Your task to perform on an android device: Open the calendar and show me this week's events? Image 0: 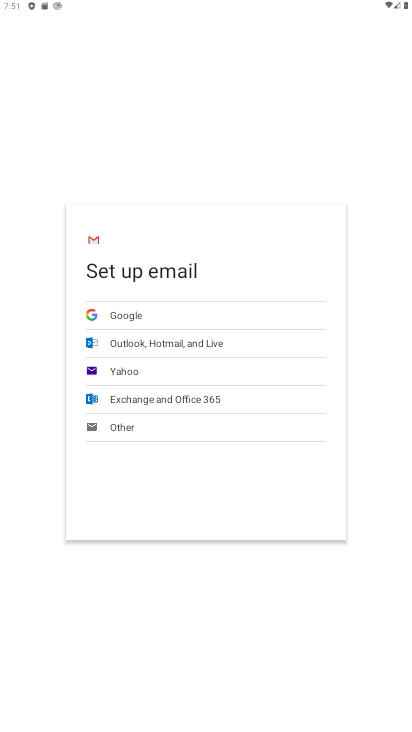
Step 0: press home button
Your task to perform on an android device: Open the calendar and show me this week's events? Image 1: 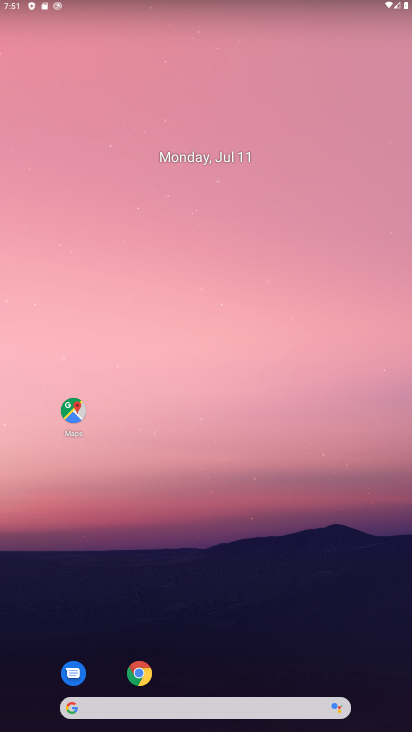
Step 1: drag from (217, 675) to (252, 101)
Your task to perform on an android device: Open the calendar and show me this week's events? Image 2: 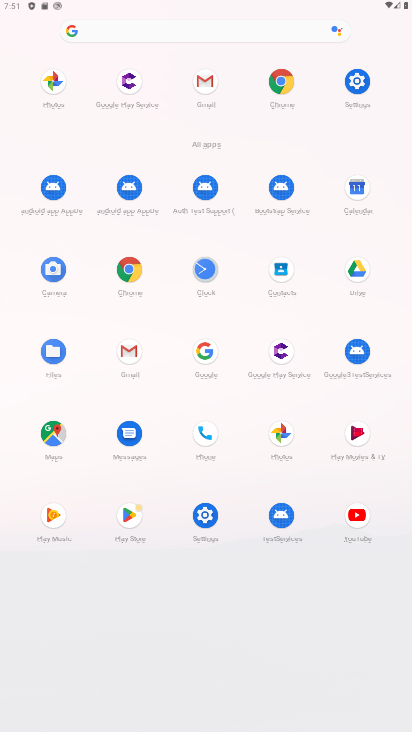
Step 2: click (358, 186)
Your task to perform on an android device: Open the calendar and show me this week's events? Image 3: 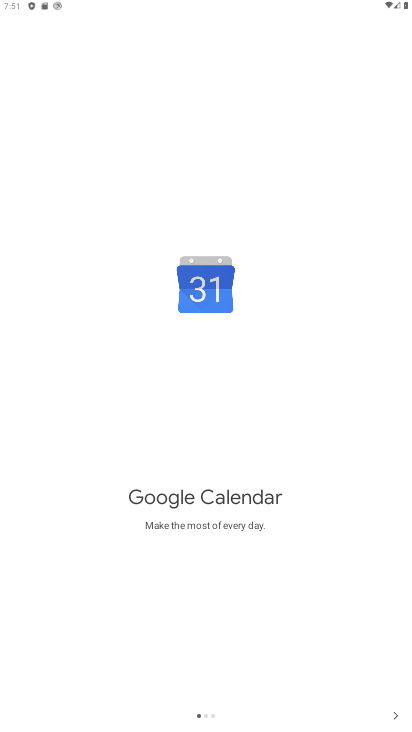
Step 3: click (394, 714)
Your task to perform on an android device: Open the calendar and show me this week's events? Image 4: 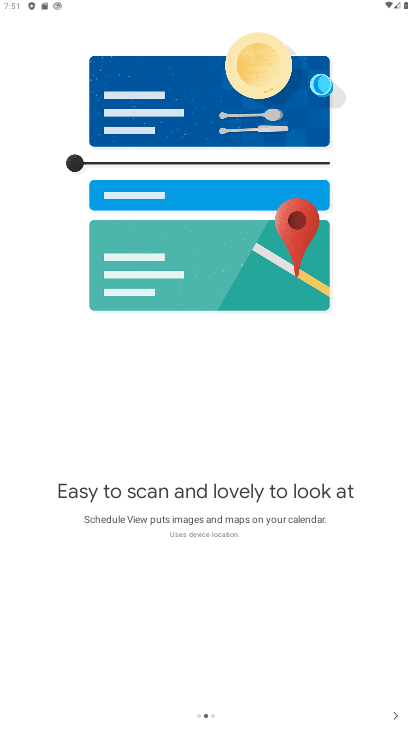
Step 4: click (394, 714)
Your task to perform on an android device: Open the calendar and show me this week's events? Image 5: 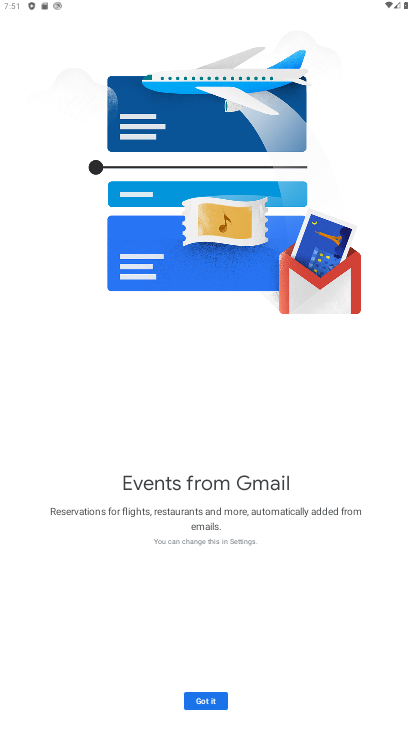
Step 5: click (207, 698)
Your task to perform on an android device: Open the calendar and show me this week's events? Image 6: 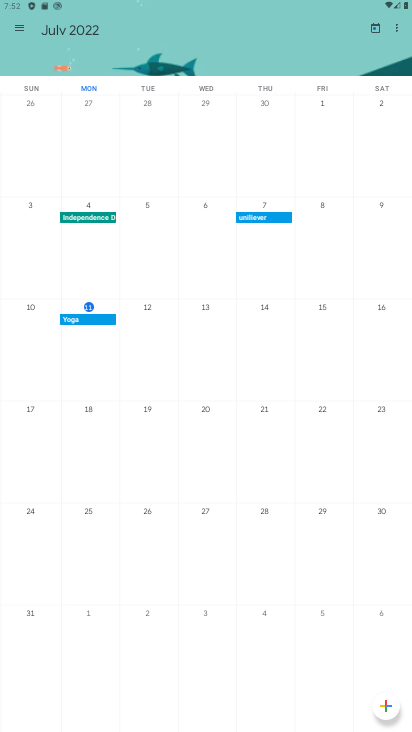
Step 6: click (14, 24)
Your task to perform on an android device: Open the calendar and show me this week's events? Image 7: 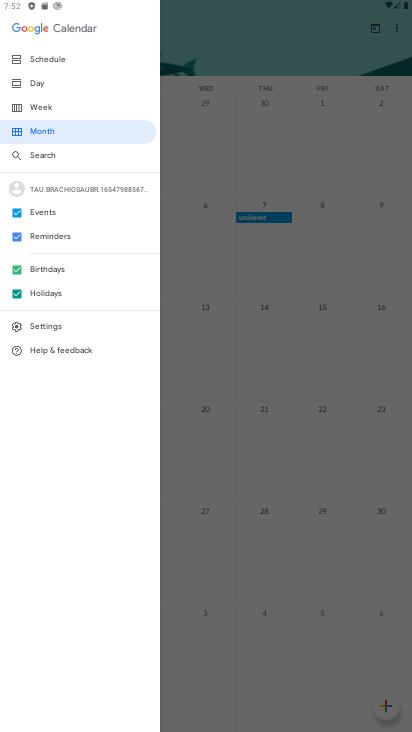
Step 7: click (41, 106)
Your task to perform on an android device: Open the calendar and show me this week's events? Image 8: 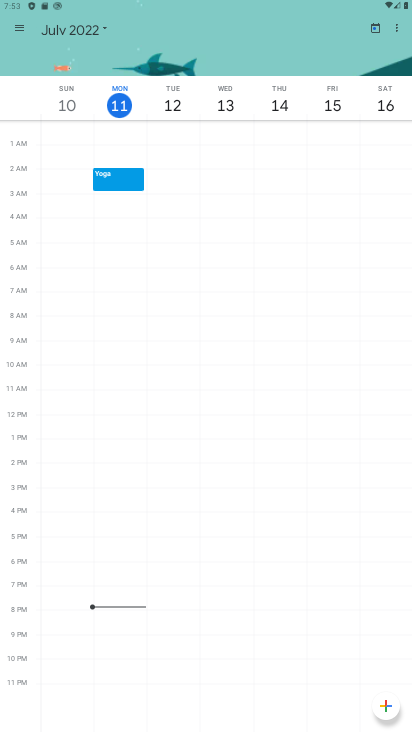
Step 8: task complete